Your task to perform on an android device: change the clock display to digital Image 0: 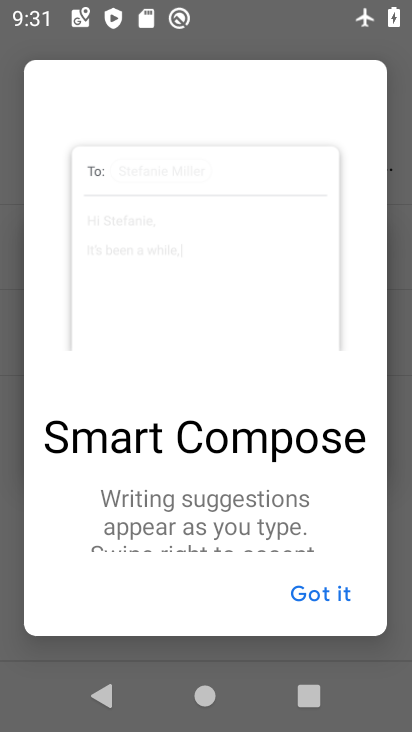
Step 0: press home button
Your task to perform on an android device: change the clock display to digital Image 1: 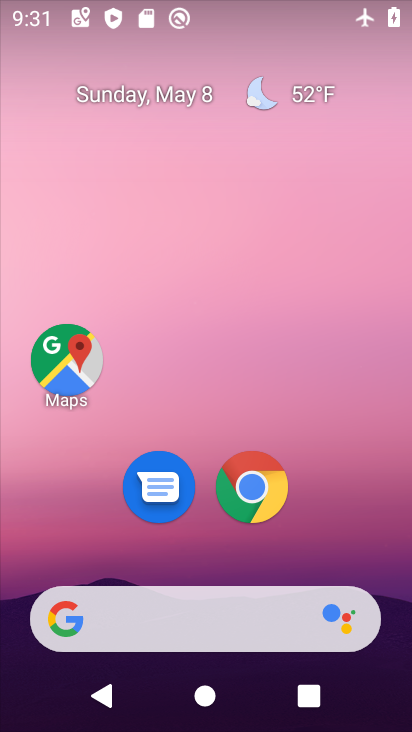
Step 1: drag from (392, 639) to (311, 90)
Your task to perform on an android device: change the clock display to digital Image 2: 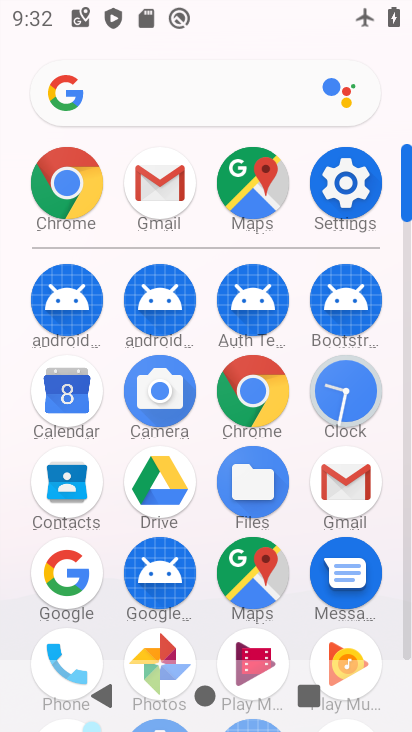
Step 2: click (353, 392)
Your task to perform on an android device: change the clock display to digital Image 3: 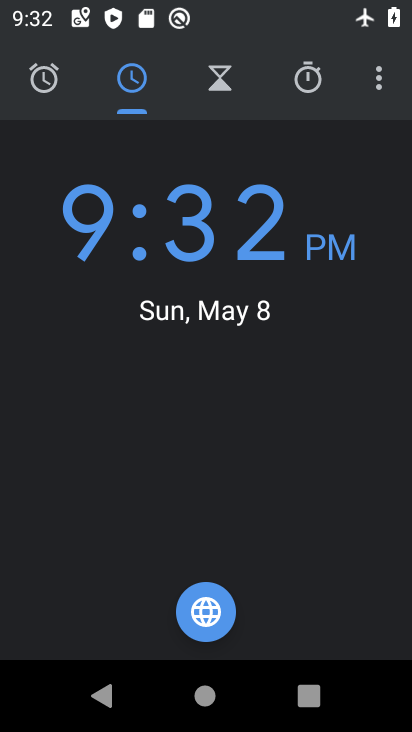
Step 3: click (378, 78)
Your task to perform on an android device: change the clock display to digital Image 4: 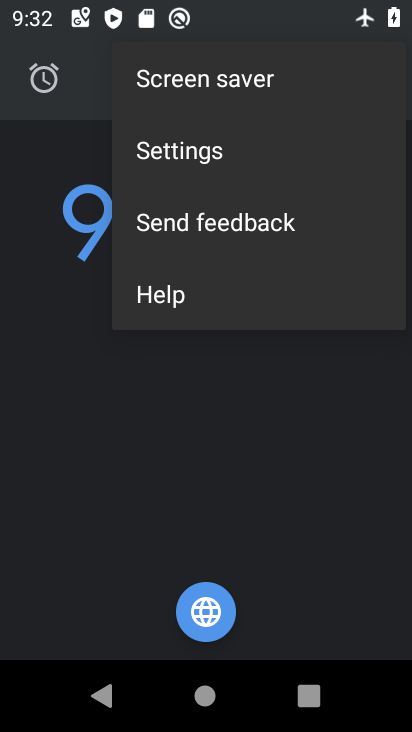
Step 4: click (195, 160)
Your task to perform on an android device: change the clock display to digital Image 5: 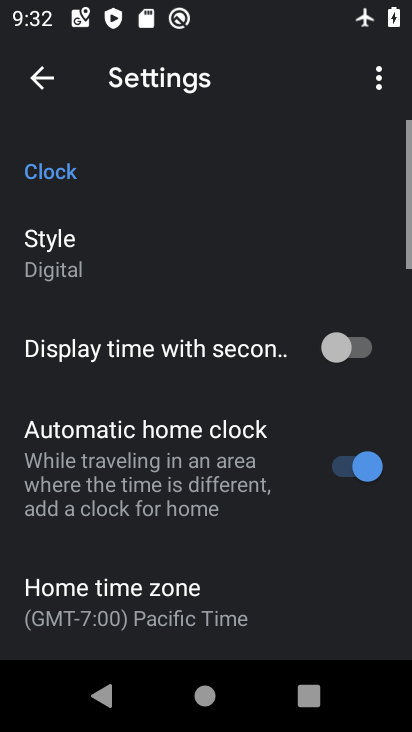
Step 5: click (144, 261)
Your task to perform on an android device: change the clock display to digital Image 6: 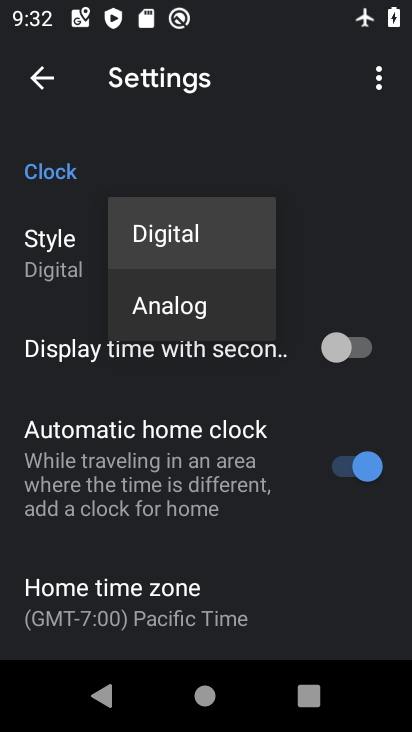
Step 6: click (203, 223)
Your task to perform on an android device: change the clock display to digital Image 7: 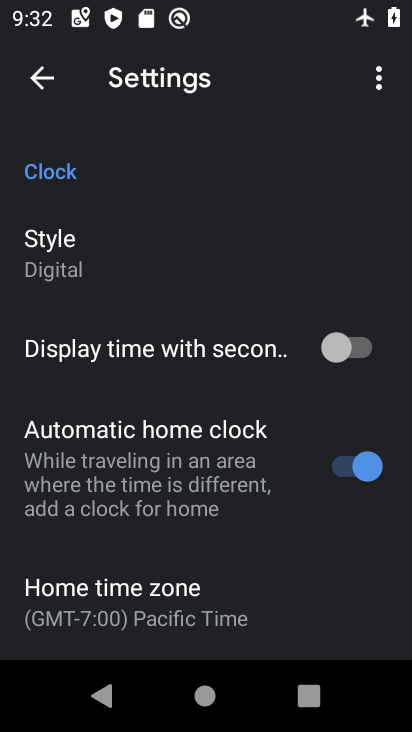
Step 7: task complete